Your task to perform on an android device: toggle notifications settings in the gmail app Image 0: 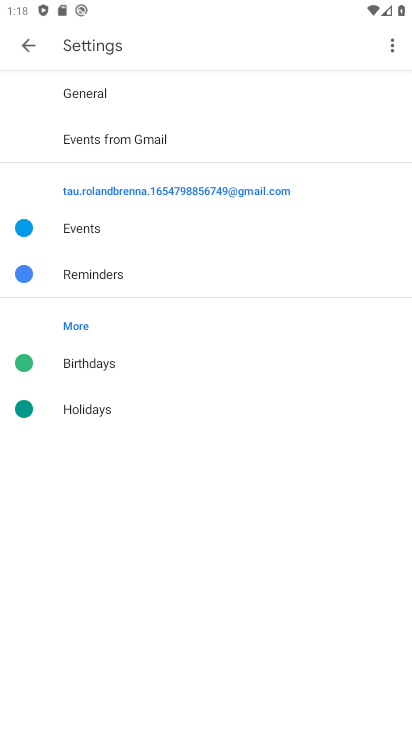
Step 0: press home button
Your task to perform on an android device: toggle notifications settings in the gmail app Image 1: 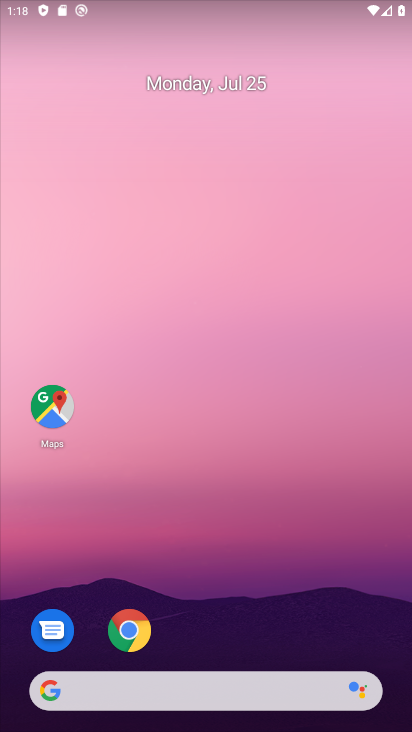
Step 1: drag from (304, 625) to (254, 303)
Your task to perform on an android device: toggle notifications settings in the gmail app Image 2: 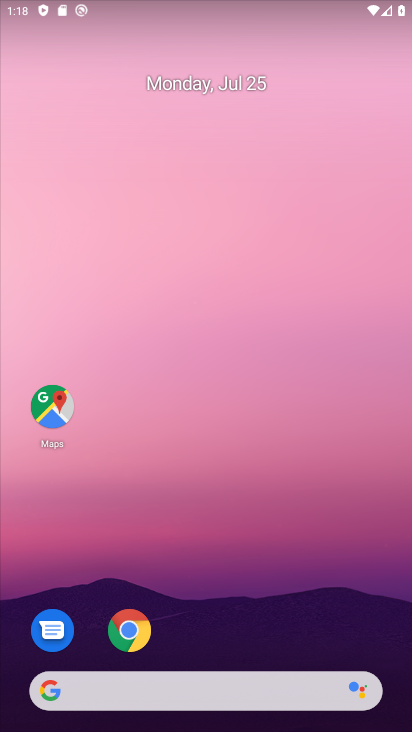
Step 2: drag from (287, 658) to (253, 120)
Your task to perform on an android device: toggle notifications settings in the gmail app Image 3: 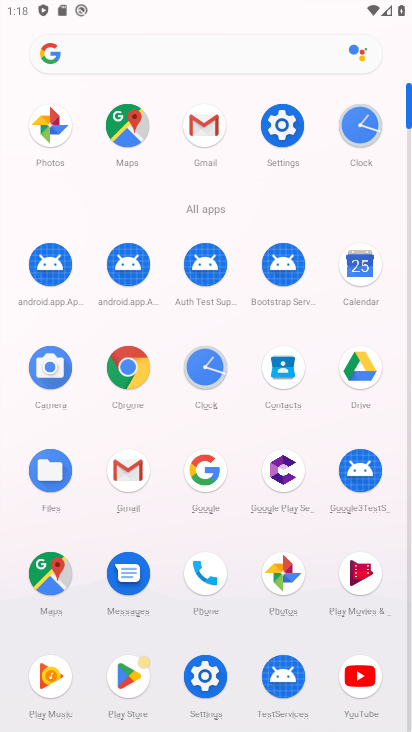
Step 3: click (201, 118)
Your task to perform on an android device: toggle notifications settings in the gmail app Image 4: 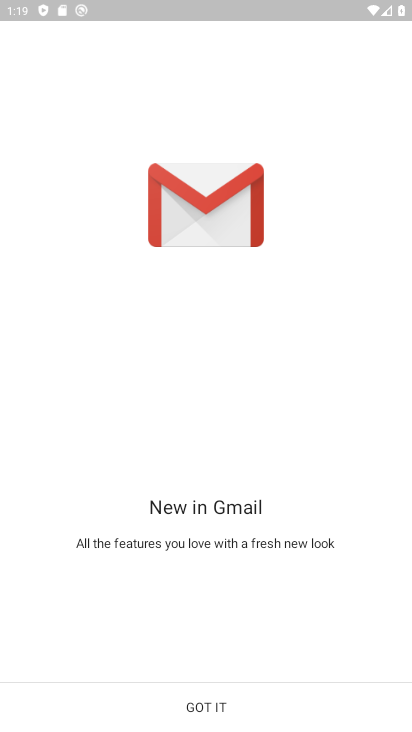
Step 4: click (328, 713)
Your task to perform on an android device: toggle notifications settings in the gmail app Image 5: 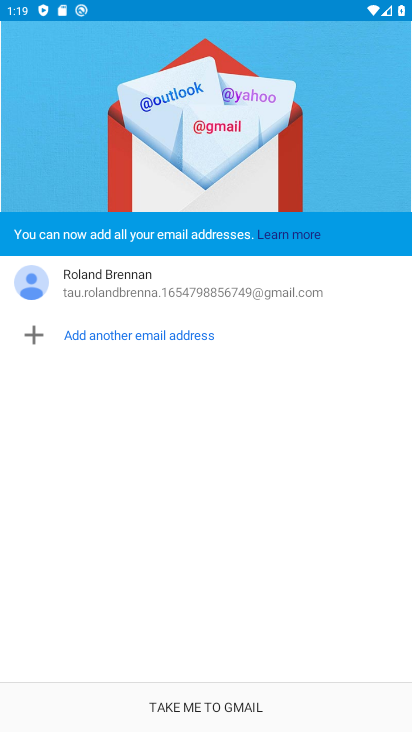
Step 5: click (265, 716)
Your task to perform on an android device: toggle notifications settings in the gmail app Image 6: 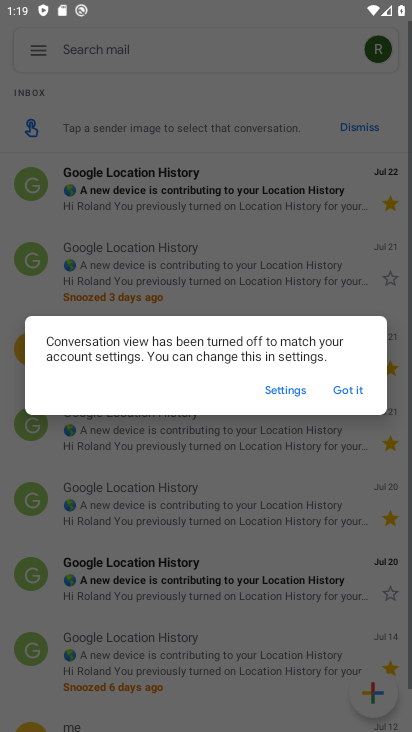
Step 6: click (333, 389)
Your task to perform on an android device: toggle notifications settings in the gmail app Image 7: 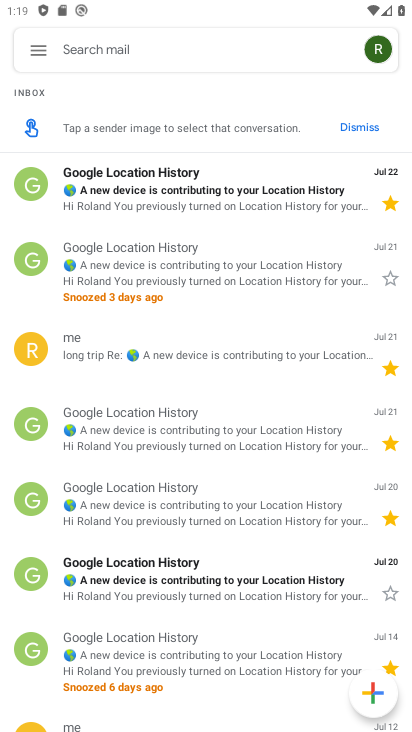
Step 7: click (36, 60)
Your task to perform on an android device: toggle notifications settings in the gmail app Image 8: 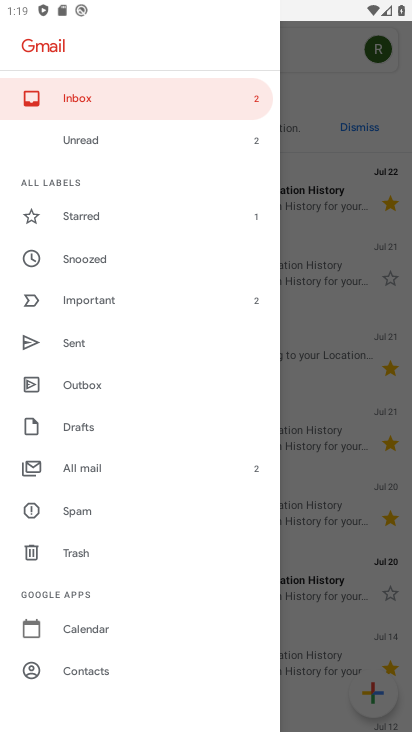
Step 8: drag from (89, 663) to (127, 318)
Your task to perform on an android device: toggle notifications settings in the gmail app Image 9: 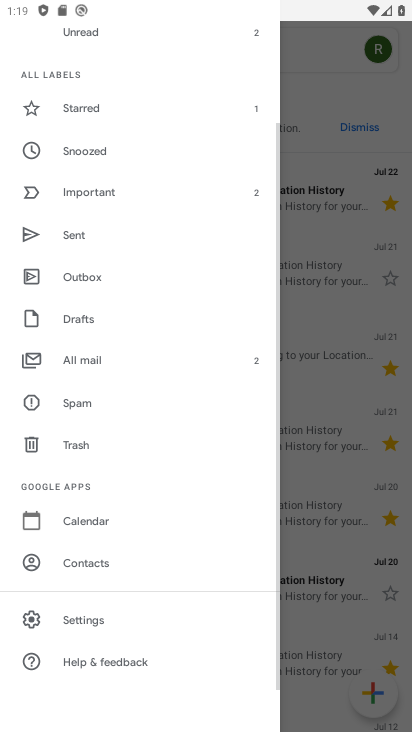
Step 9: click (101, 615)
Your task to perform on an android device: toggle notifications settings in the gmail app Image 10: 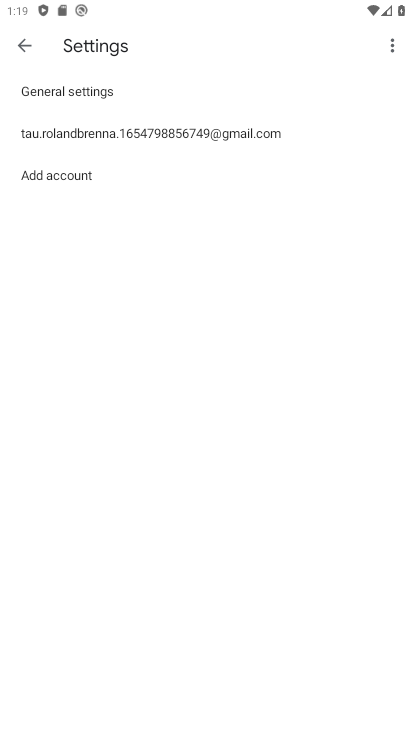
Step 10: click (59, 146)
Your task to perform on an android device: toggle notifications settings in the gmail app Image 11: 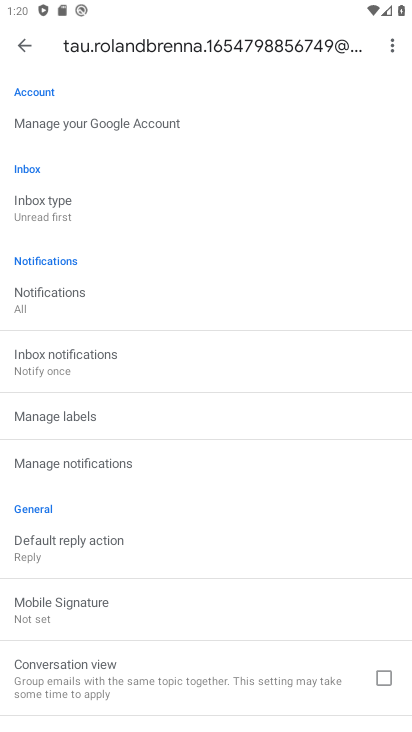
Step 11: click (35, 352)
Your task to perform on an android device: toggle notifications settings in the gmail app Image 12: 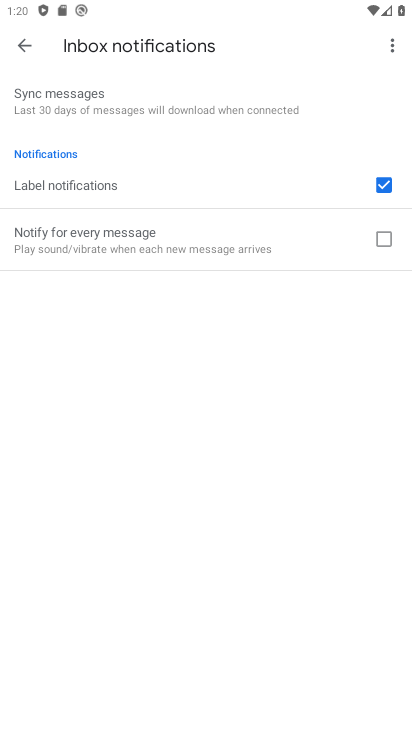
Step 12: task complete